Your task to perform on an android device: Go to Google Image 0: 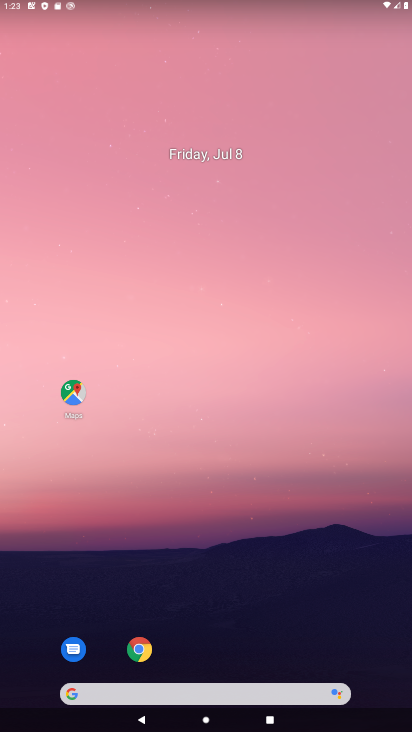
Step 0: click (140, 681)
Your task to perform on an android device: Go to Google Image 1: 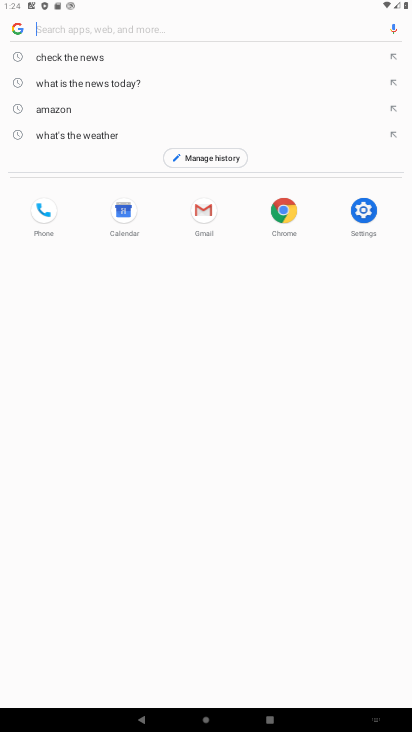
Step 1: task complete